Your task to perform on an android device: Open calendar and show me the fourth week of next month Image 0: 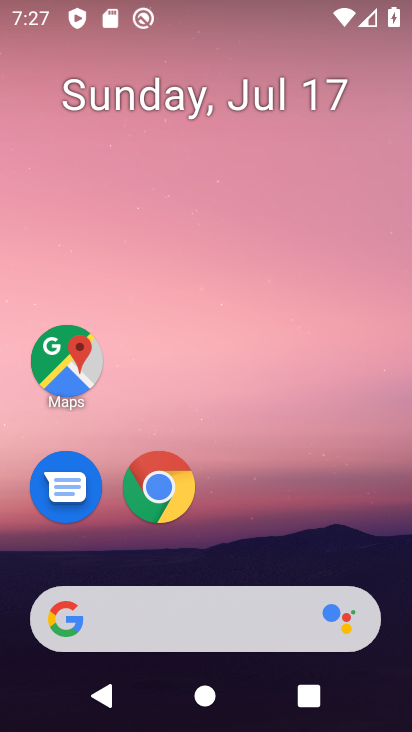
Step 0: drag from (367, 520) to (383, 88)
Your task to perform on an android device: Open calendar and show me the fourth week of next month Image 1: 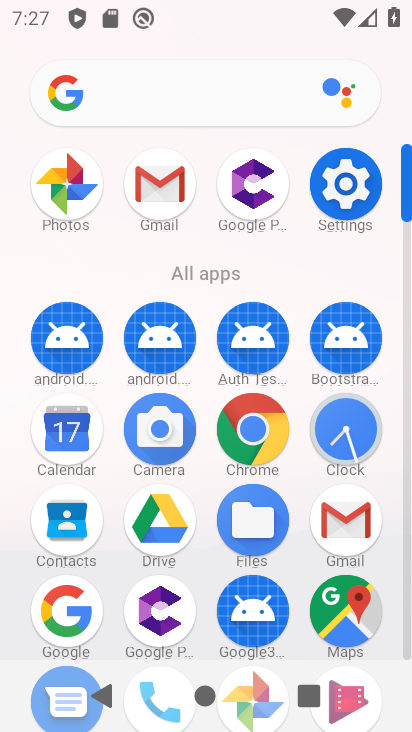
Step 1: click (64, 430)
Your task to perform on an android device: Open calendar and show me the fourth week of next month Image 2: 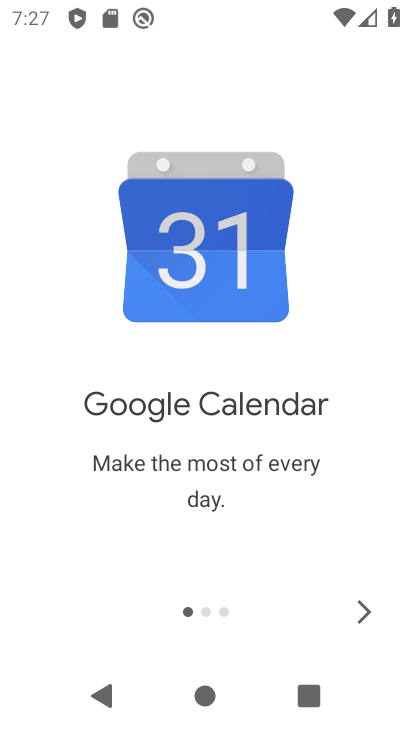
Step 2: click (361, 617)
Your task to perform on an android device: Open calendar and show me the fourth week of next month Image 3: 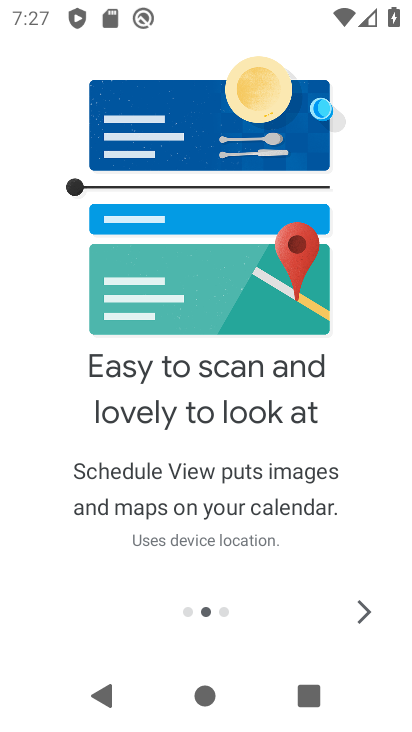
Step 3: click (361, 617)
Your task to perform on an android device: Open calendar and show me the fourth week of next month Image 4: 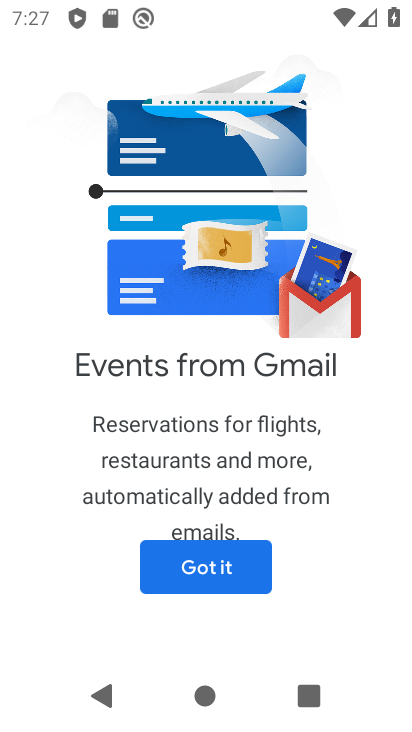
Step 4: click (245, 568)
Your task to perform on an android device: Open calendar and show me the fourth week of next month Image 5: 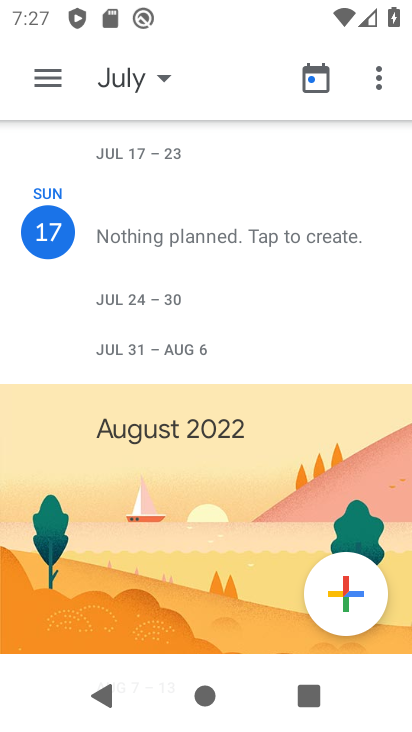
Step 5: click (159, 77)
Your task to perform on an android device: Open calendar and show me the fourth week of next month Image 6: 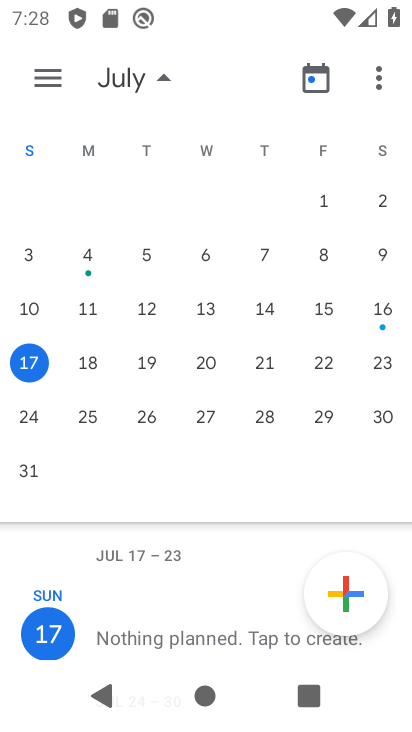
Step 6: drag from (397, 232) to (1, 204)
Your task to perform on an android device: Open calendar and show me the fourth week of next month Image 7: 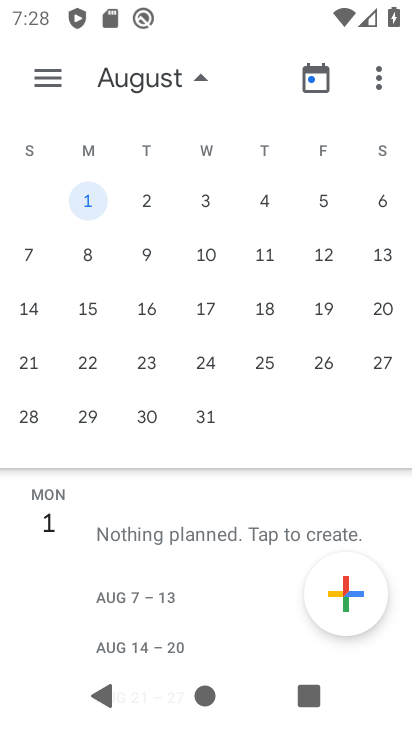
Step 7: click (82, 358)
Your task to perform on an android device: Open calendar and show me the fourth week of next month Image 8: 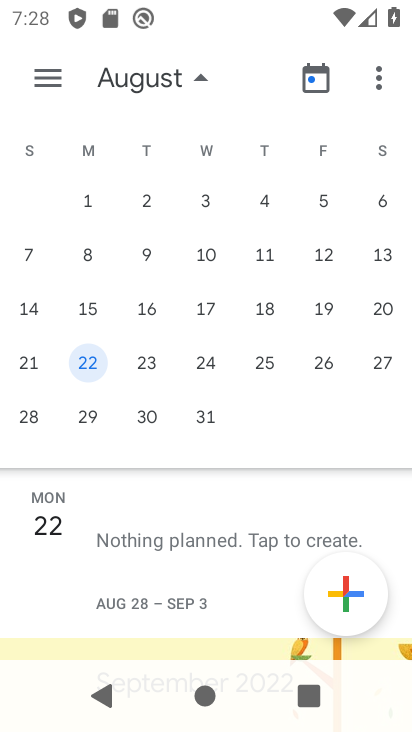
Step 8: task complete